Your task to perform on an android device: Open Chrome and go to the settings page Image 0: 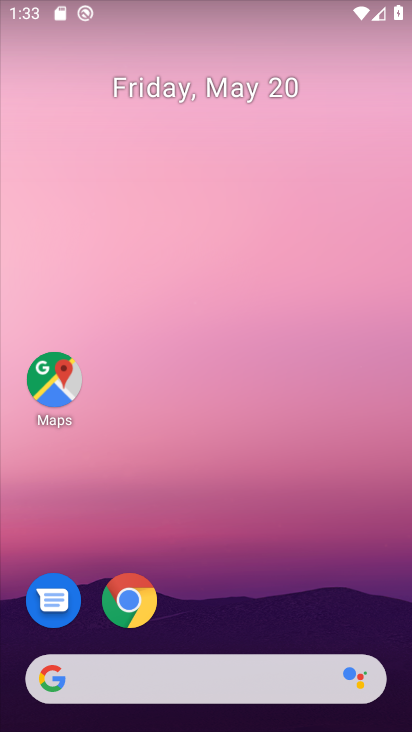
Step 0: click (132, 596)
Your task to perform on an android device: Open Chrome and go to the settings page Image 1: 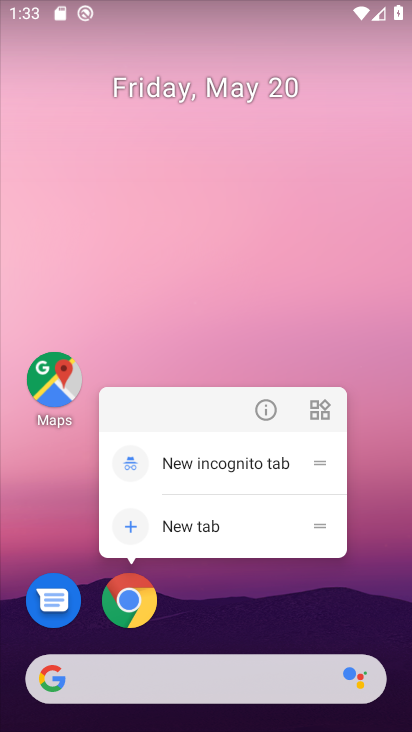
Step 1: click (114, 599)
Your task to perform on an android device: Open Chrome and go to the settings page Image 2: 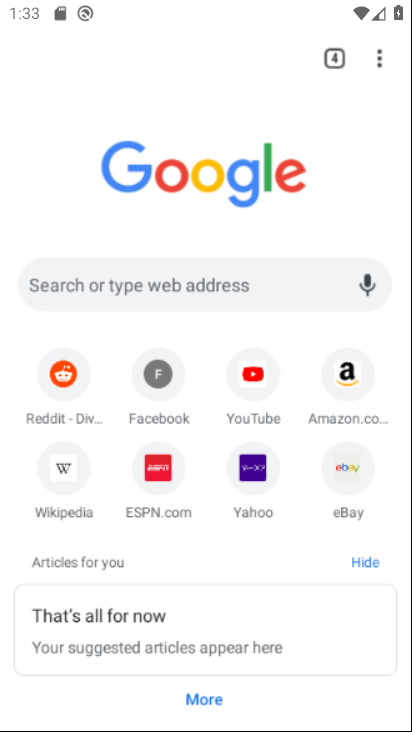
Step 2: click (388, 59)
Your task to perform on an android device: Open Chrome and go to the settings page Image 3: 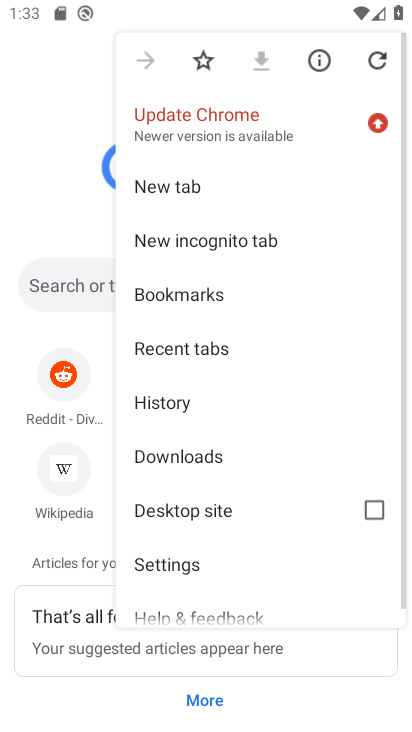
Step 3: click (262, 553)
Your task to perform on an android device: Open Chrome and go to the settings page Image 4: 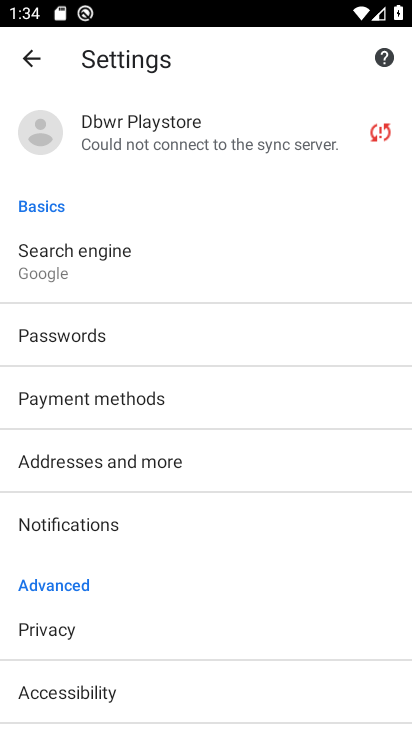
Step 4: task complete